Your task to perform on an android device: delete browsing data in the chrome app Image 0: 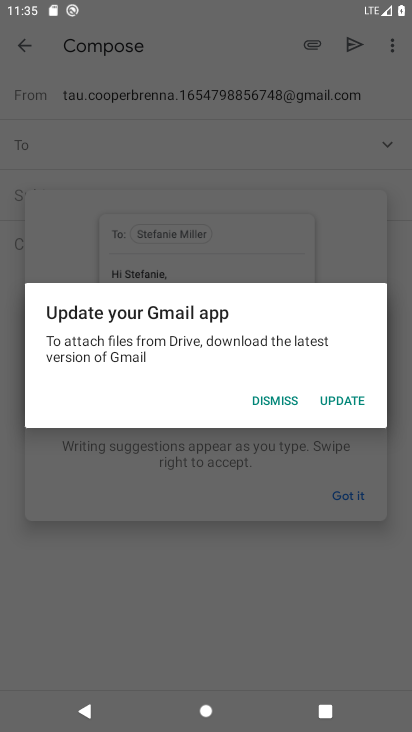
Step 0: press home button
Your task to perform on an android device: delete browsing data in the chrome app Image 1: 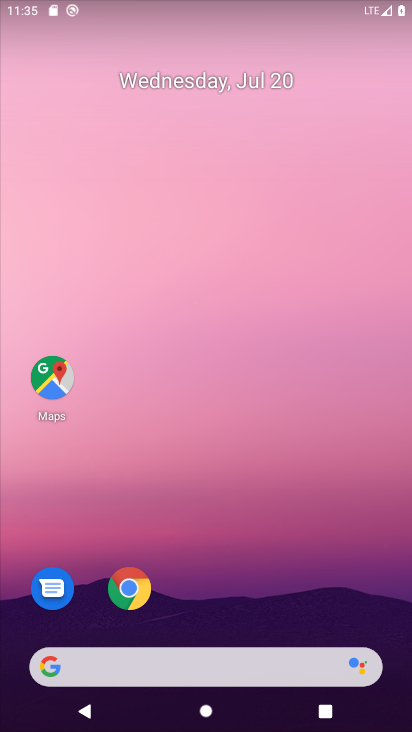
Step 1: click (125, 587)
Your task to perform on an android device: delete browsing data in the chrome app Image 2: 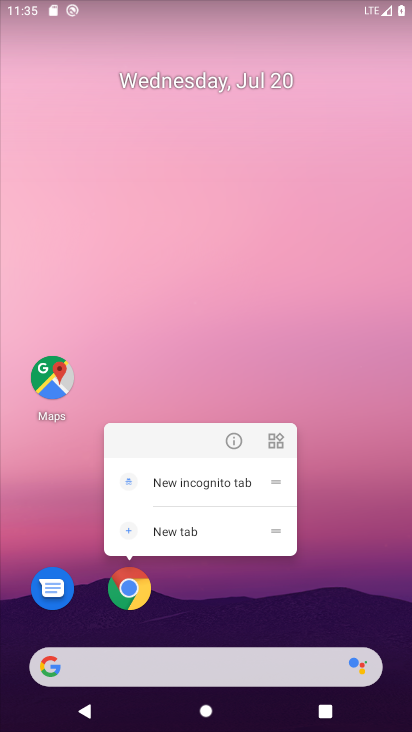
Step 2: click (131, 582)
Your task to perform on an android device: delete browsing data in the chrome app Image 3: 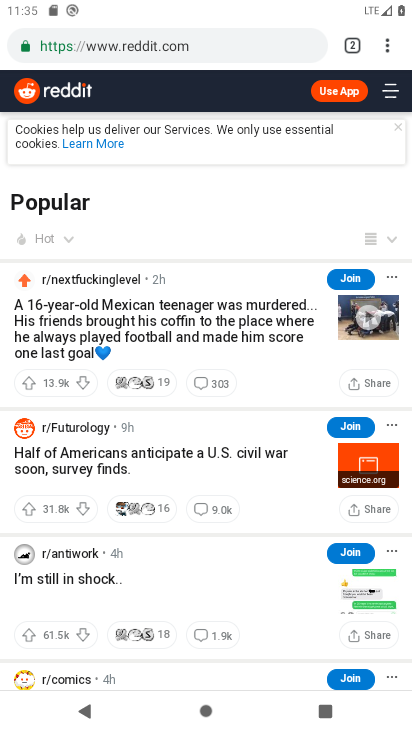
Step 3: click (388, 44)
Your task to perform on an android device: delete browsing data in the chrome app Image 4: 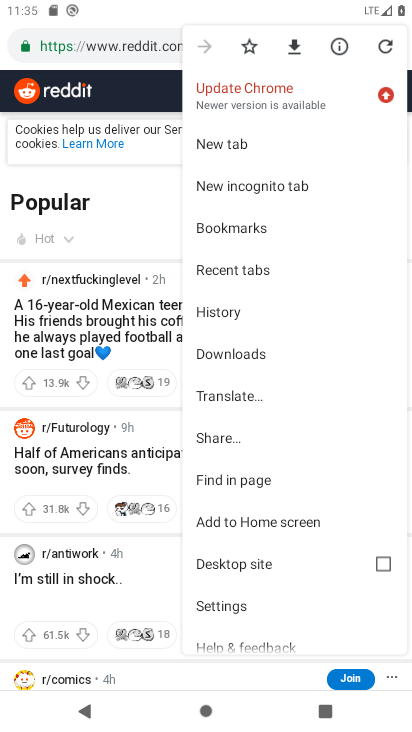
Step 4: click (249, 309)
Your task to perform on an android device: delete browsing data in the chrome app Image 5: 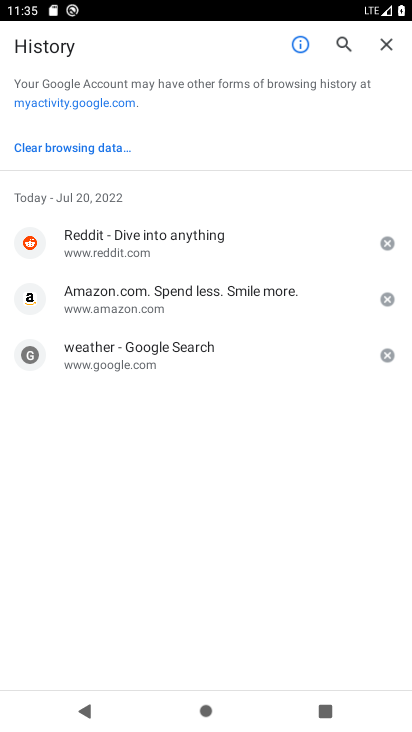
Step 5: click (88, 150)
Your task to perform on an android device: delete browsing data in the chrome app Image 6: 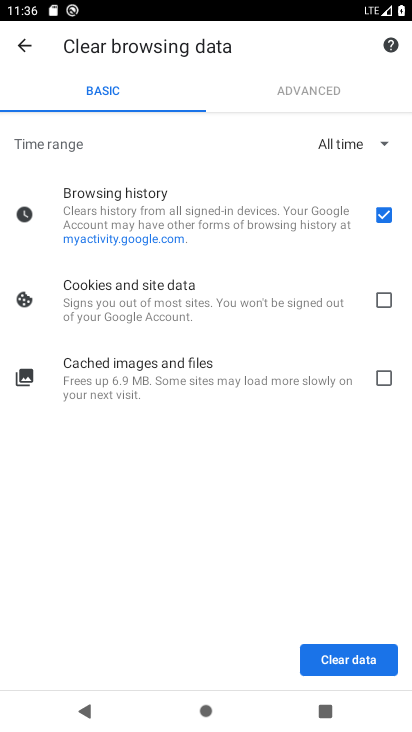
Step 6: click (345, 656)
Your task to perform on an android device: delete browsing data in the chrome app Image 7: 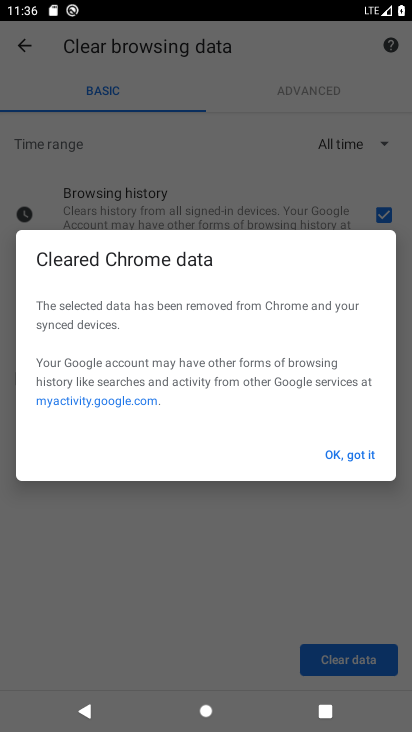
Step 7: click (356, 456)
Your task to perform on an android device: delete browsing data in the chrome app Image 8: 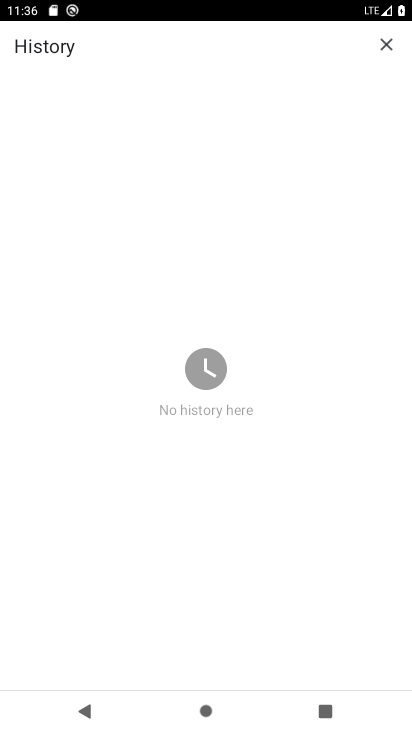
Step 8: task complete